Your task to perform on an android device: Open the calendar app, open the side menu, and click the "Day" option Image 0: 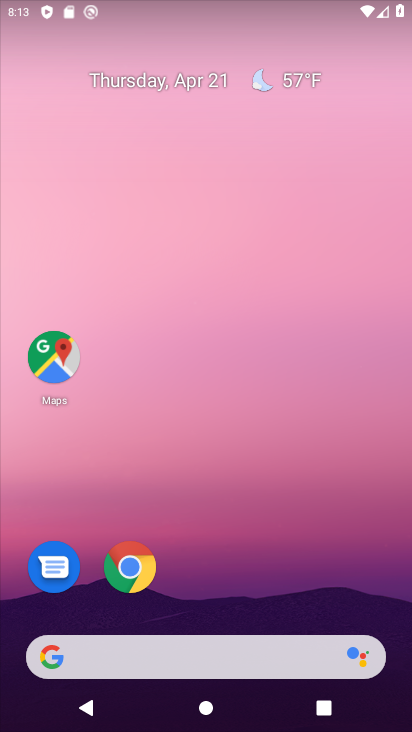
Step 0: drag from (201, 632) to (411, 602)
Your task to perform on an android device: Open the calendar app, open the side menu, and click the "Day" option Image 1: 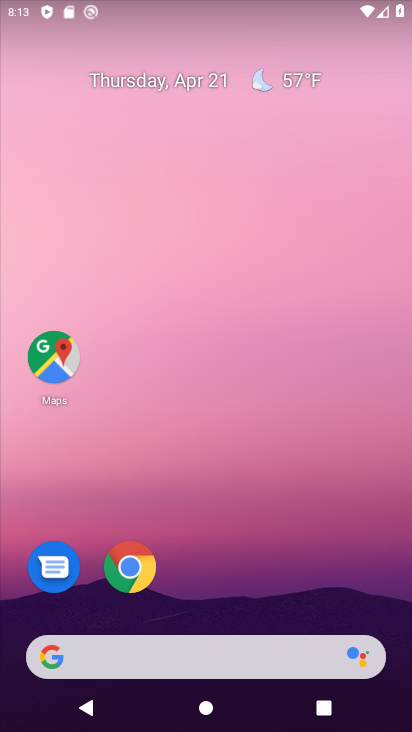
Step 1: drag from (224, 563) to (347, 21)
Your task to perform on an android device: Open the calendar app, open the side menu, and click the "Day" option Image 2: 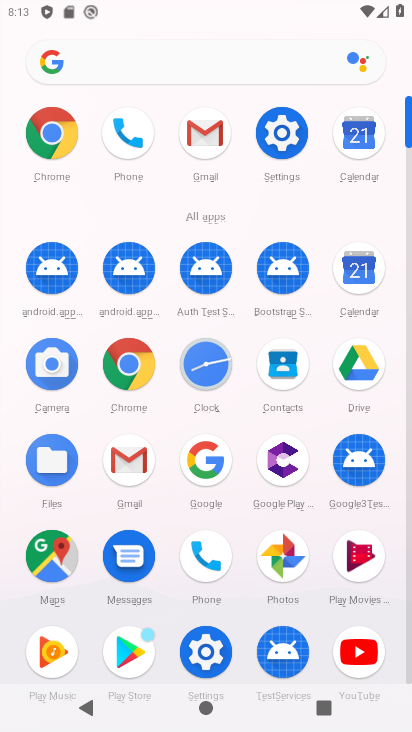
Step 2: click (355, 276)
Your task to perform on an android device: Open the calendar app, open the side menu, and click the "Day" option Image 3: 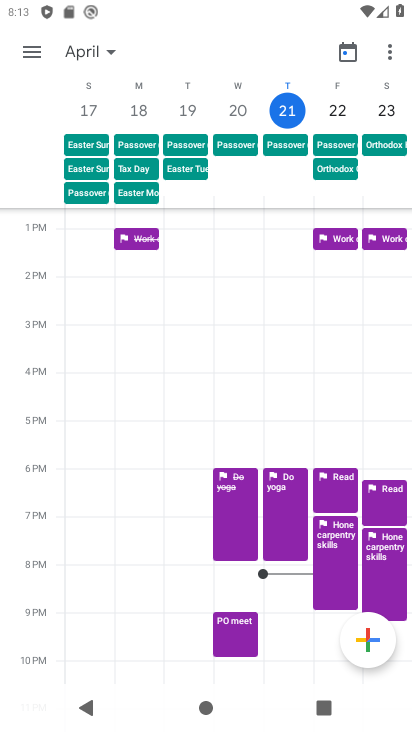
Step 3: click (32, 46)
Your task to perform on an android device: Open the calendar app, open the side menu, and click the "Day" option Image 4: 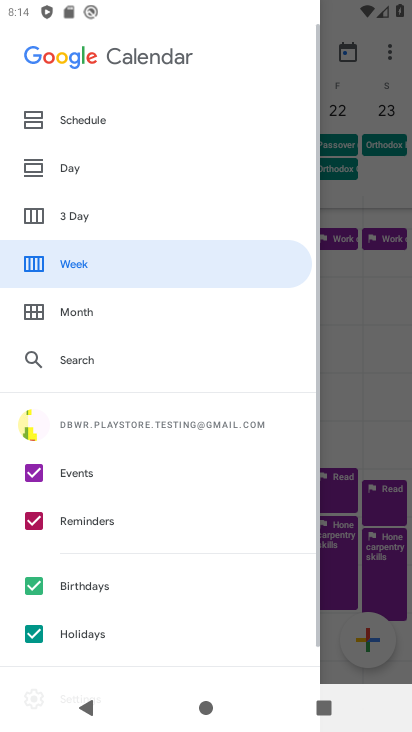
Step 4: click (76, 168)
Your task to perform on an android device: Open the calendar app, open the side menu, and click the "Day" option Image 5: 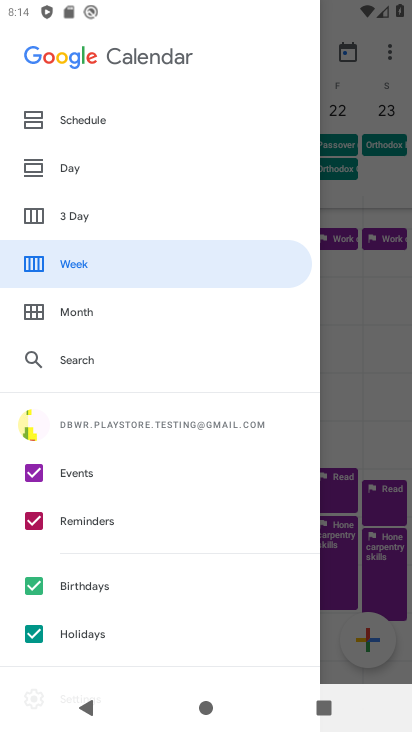
Step 5: click (70, 168)
Your task to perform on an android device: Open the calendar app, open the side menu, and click the "Day" option Image 6: 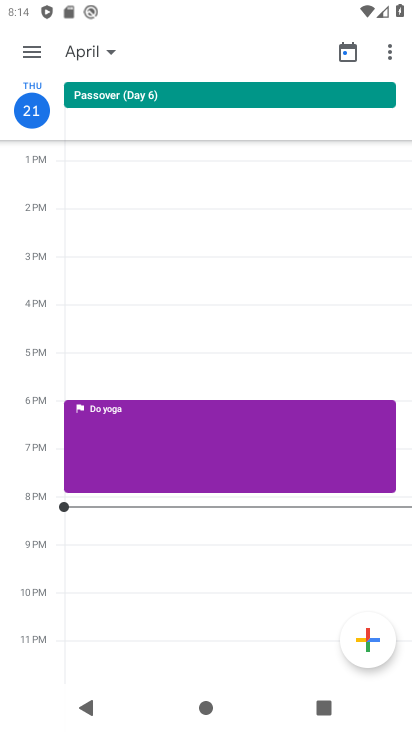
Step 6: task complete